Your task to perform on an android device: Add "bose soundlink" to the cart on ebay, then select checkout. Image 0: 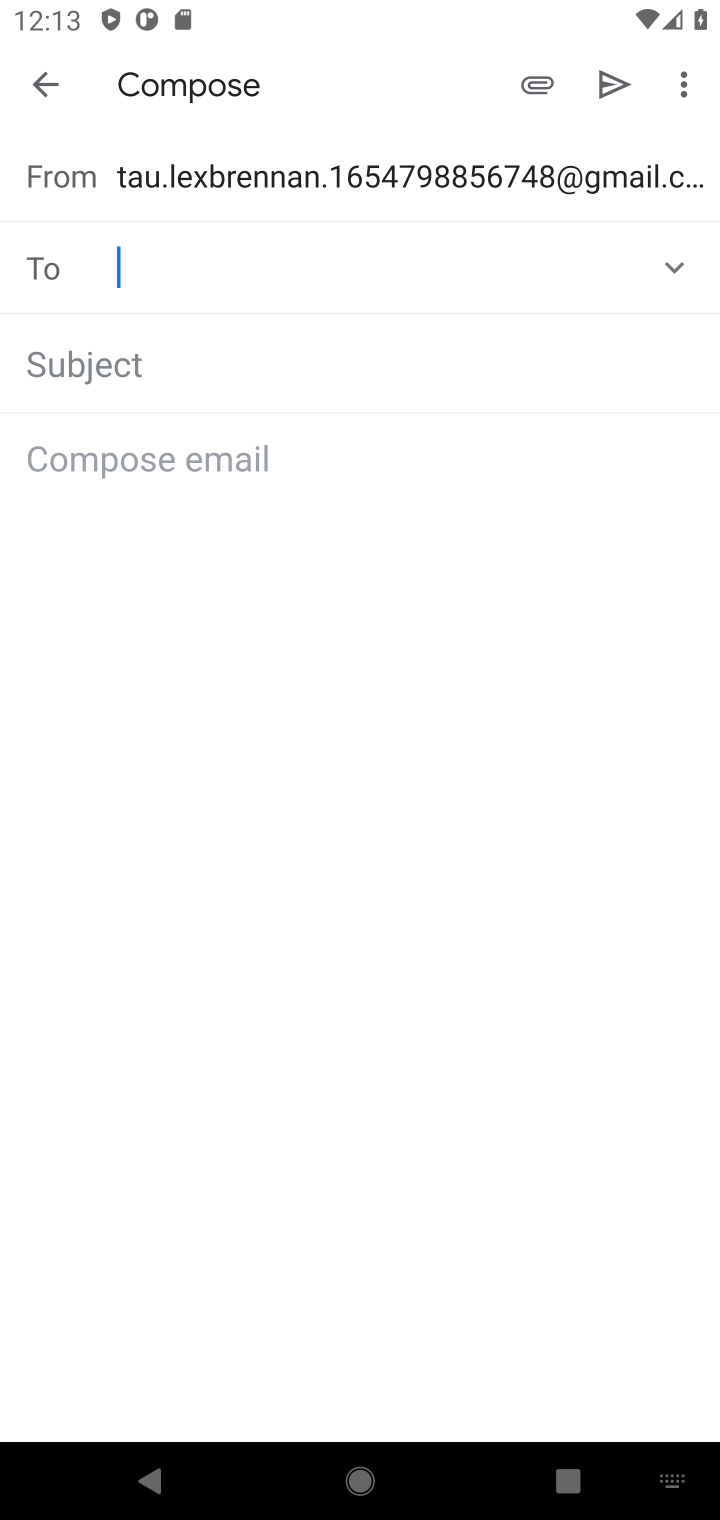
Step 0: press home button
Your task to perform on an android device: Add "bose soundlink" to the cart on ebay, then select checkout. Image 1: 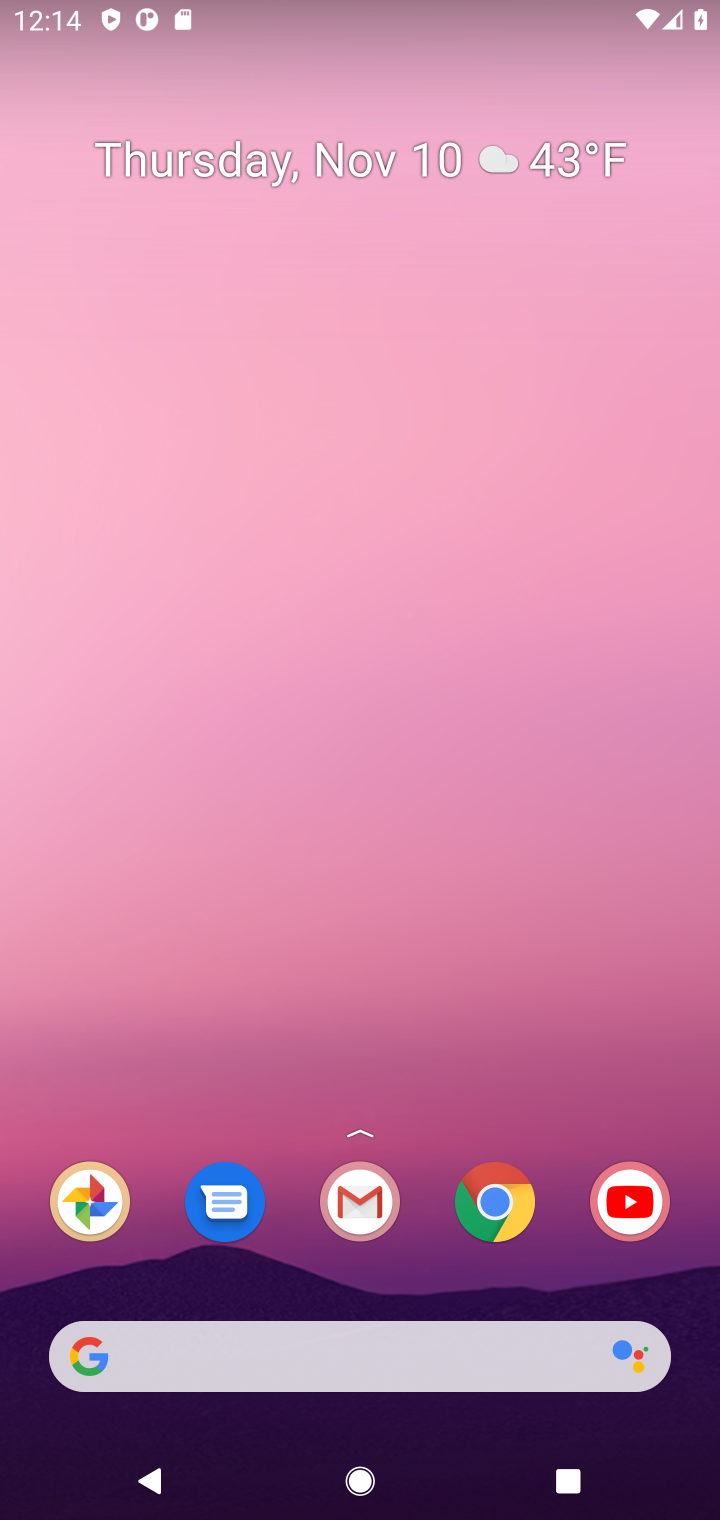
Step 1: click (497, 1194)
Your task to perform on an android device: Add "bose soundlink" to the cart on ebay, then select checkout. Image 2: 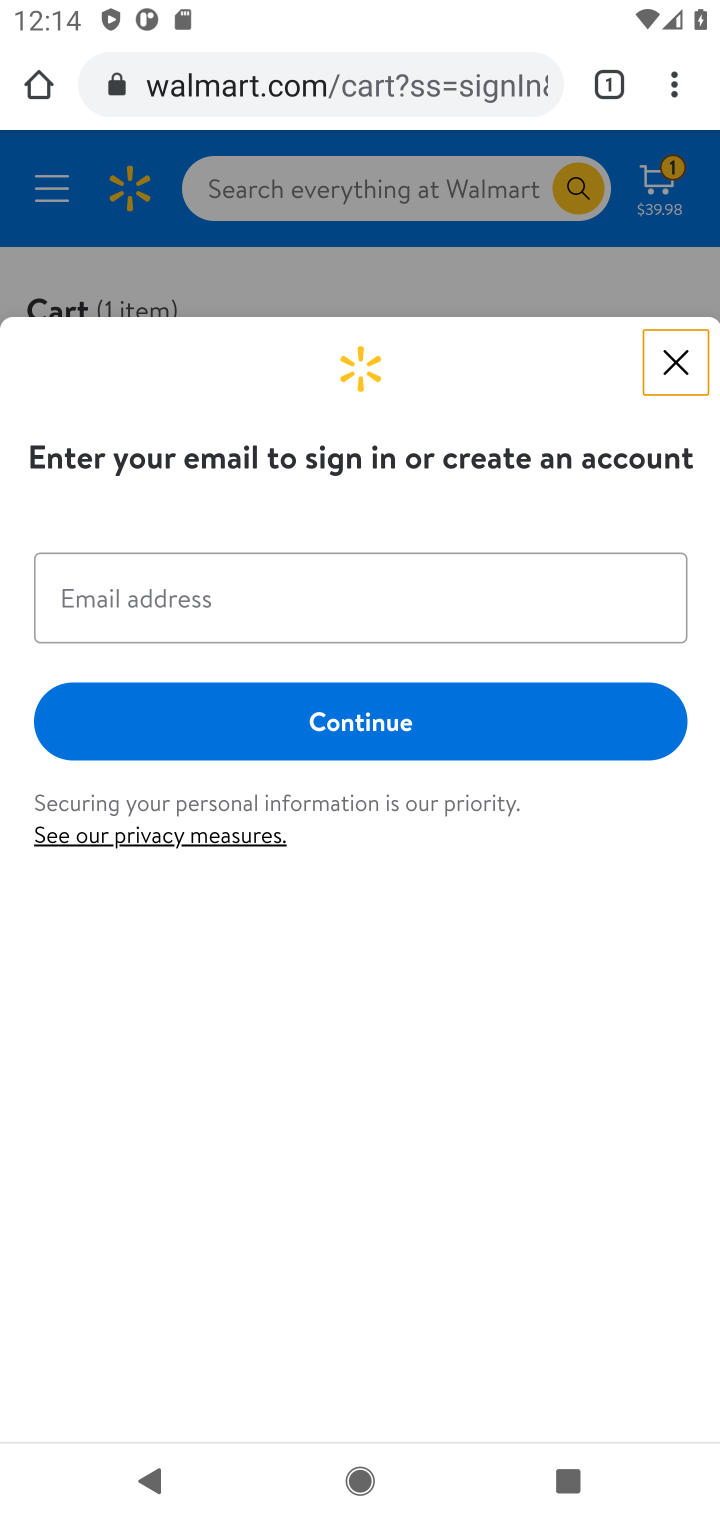
Step 2: click (354, 80)
Your task to perform on an android device: Add "bose soundlink" to the cart on ebay, then select checkout. Image 3: 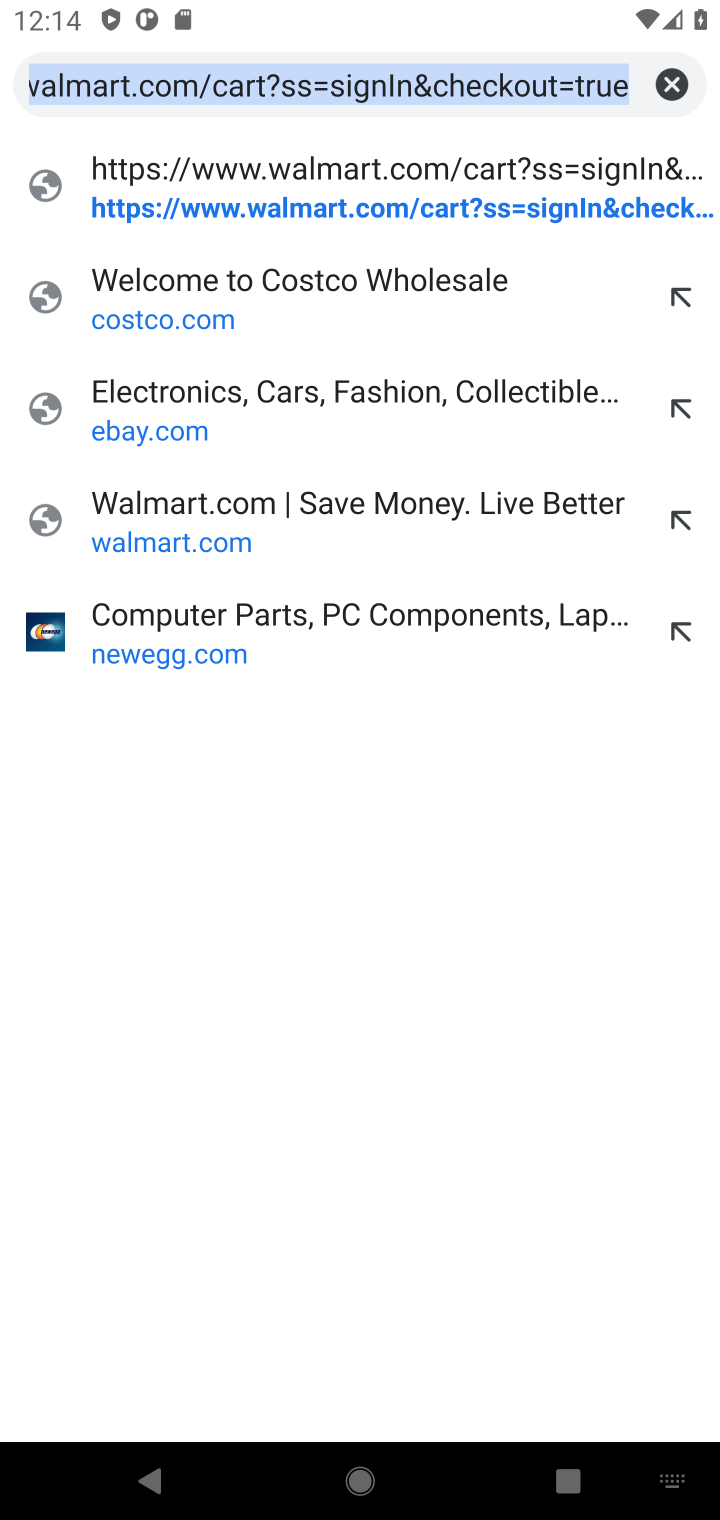
Step 3: click (286, 398)
Your task to perform on an android device: Add "bose soundlink" to the cart on ebay, then select checkout. Image 4: 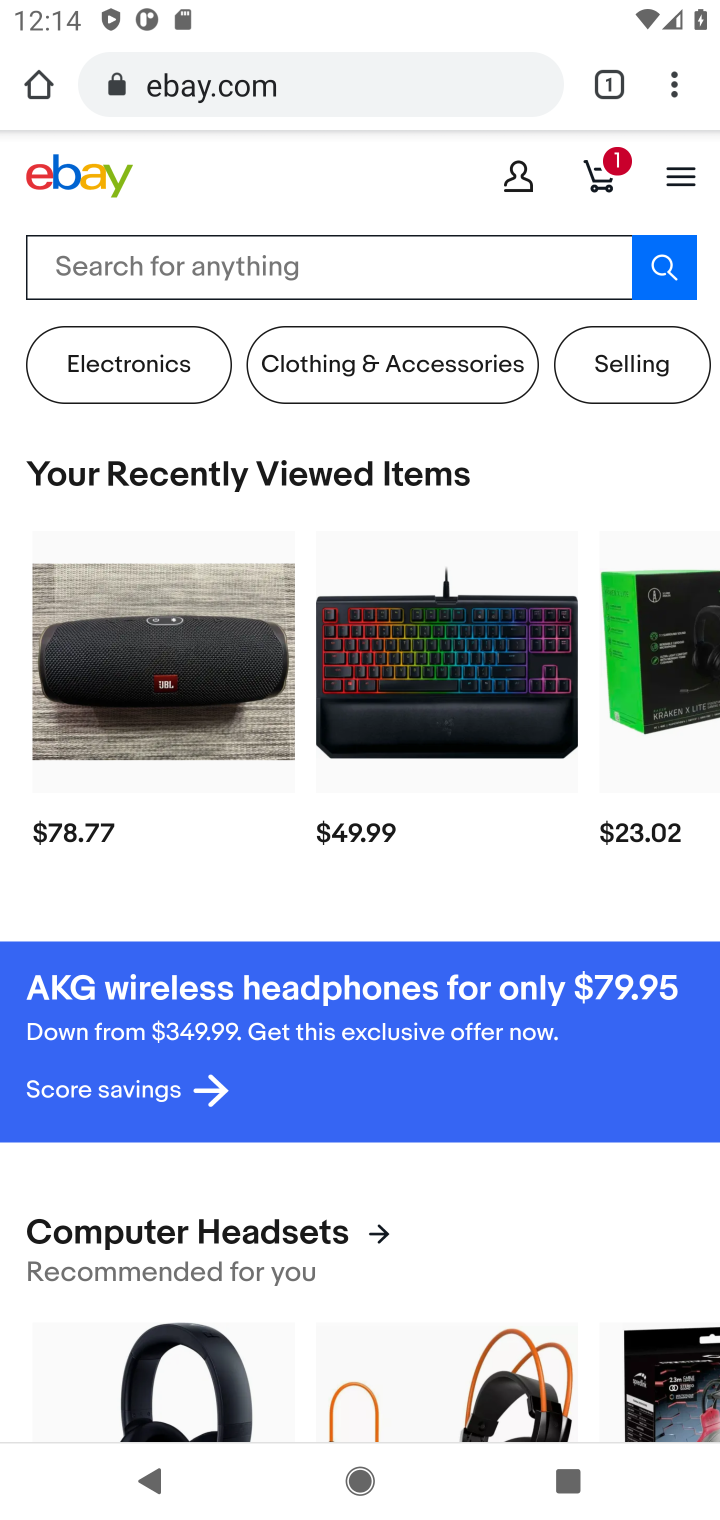
Step 4: click (459, 261)
Your task to perform on an android device: Add "bose soundlink" to the cart on ebay, then select checkout. Image 5: 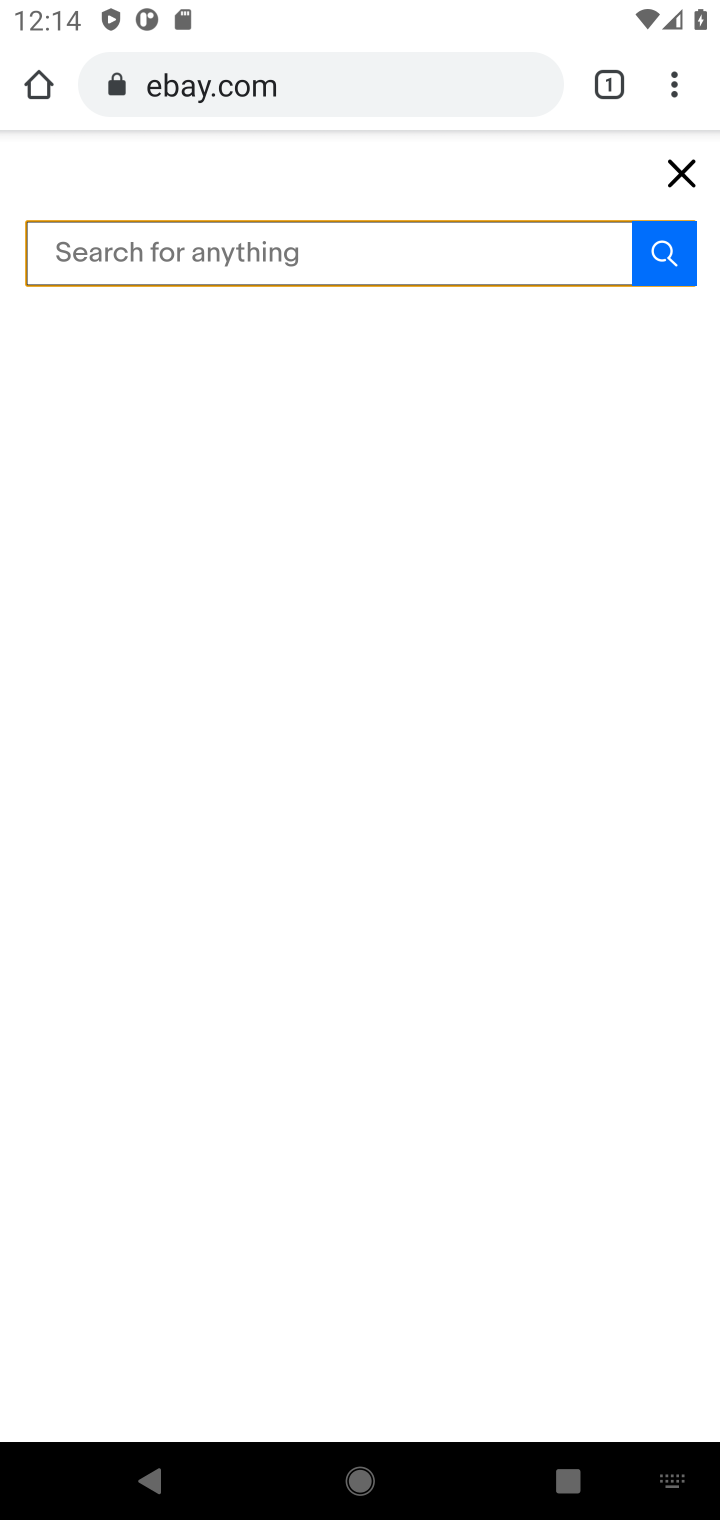
Step 5: type "bose soundlink"
Your task to perform on an android device: Add "bose soundlink" to the cart on ebay, then select checkout. Image 6: 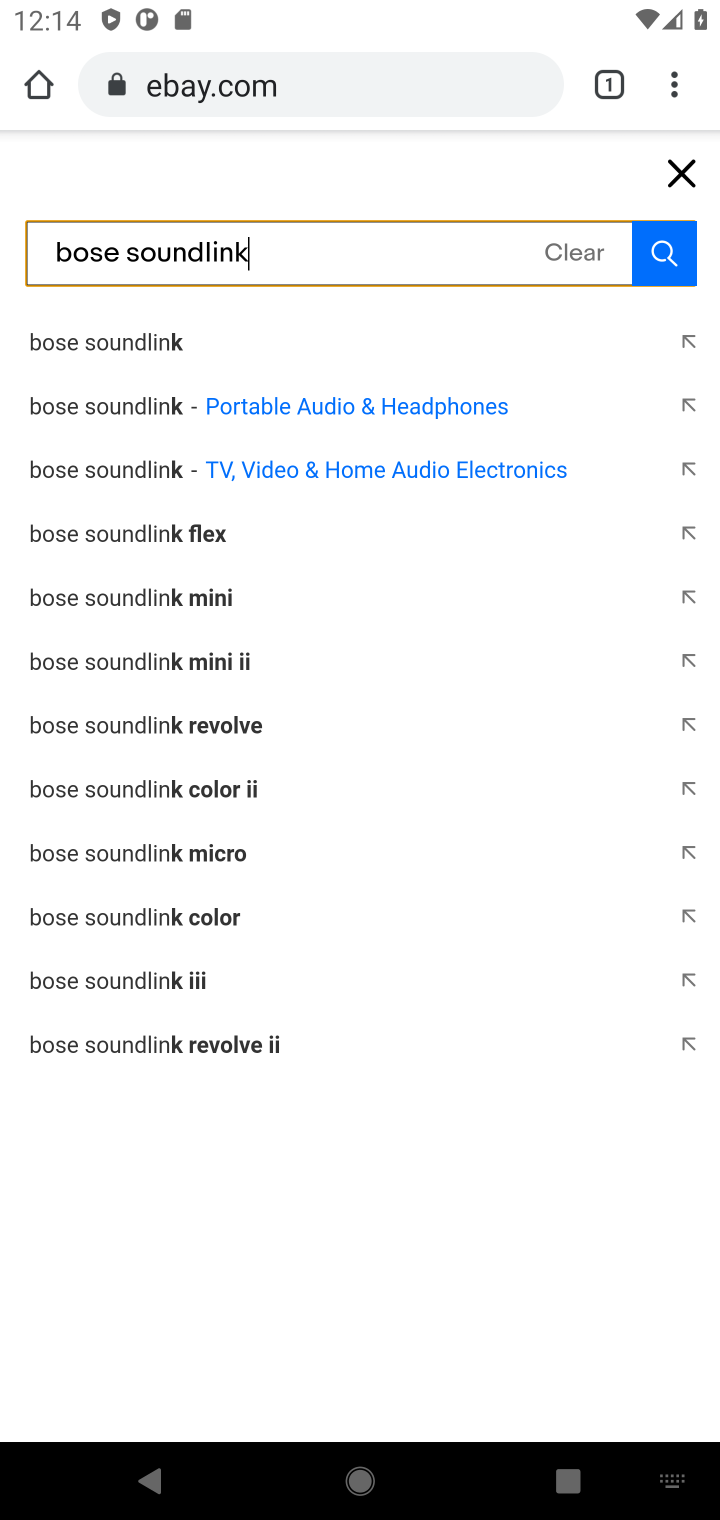
Step 6: click (120, 337)
Your task to perform on an android device: Add "bose soundlink" to the cart on ebay, then select checkout. Image 7: 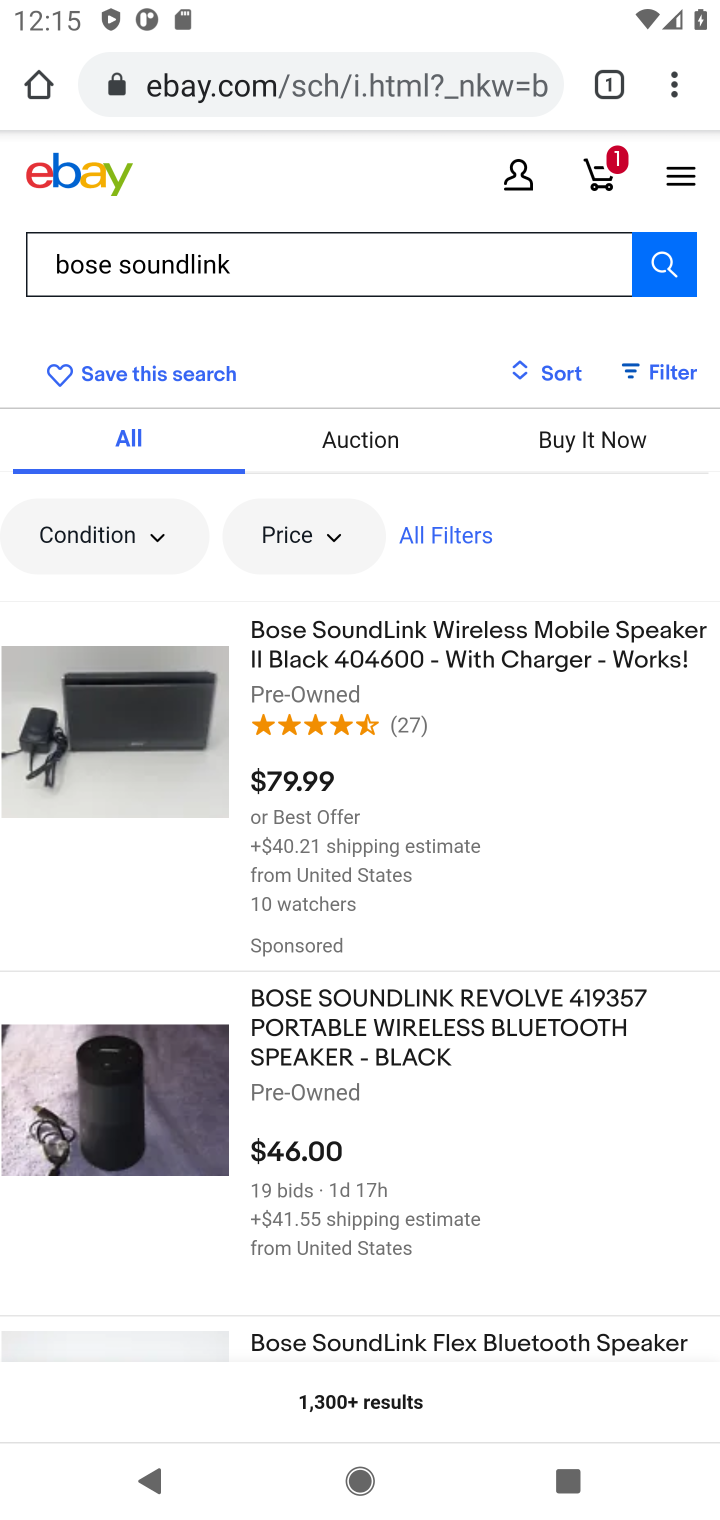
Step 7: click (133, 747)
Your task to perform on an android device: Add "bose soundlink" to the cart on ebay, then select checkout. Image 8: 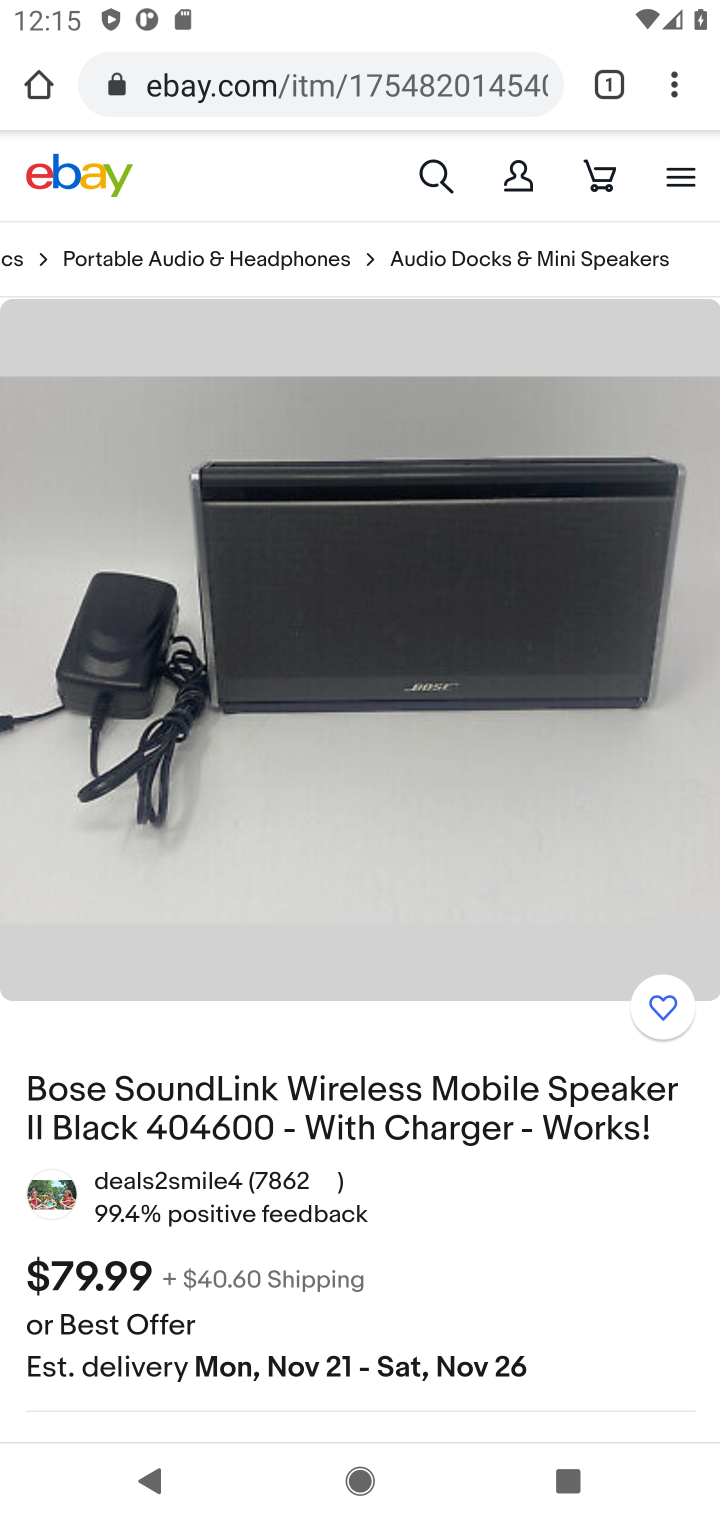
Step 8: drag from (497, 1221) to (469, 630)
Your task to perform on an android device: Add "bose soundlink" to the cart on ebay, then select checkout. Image 9: 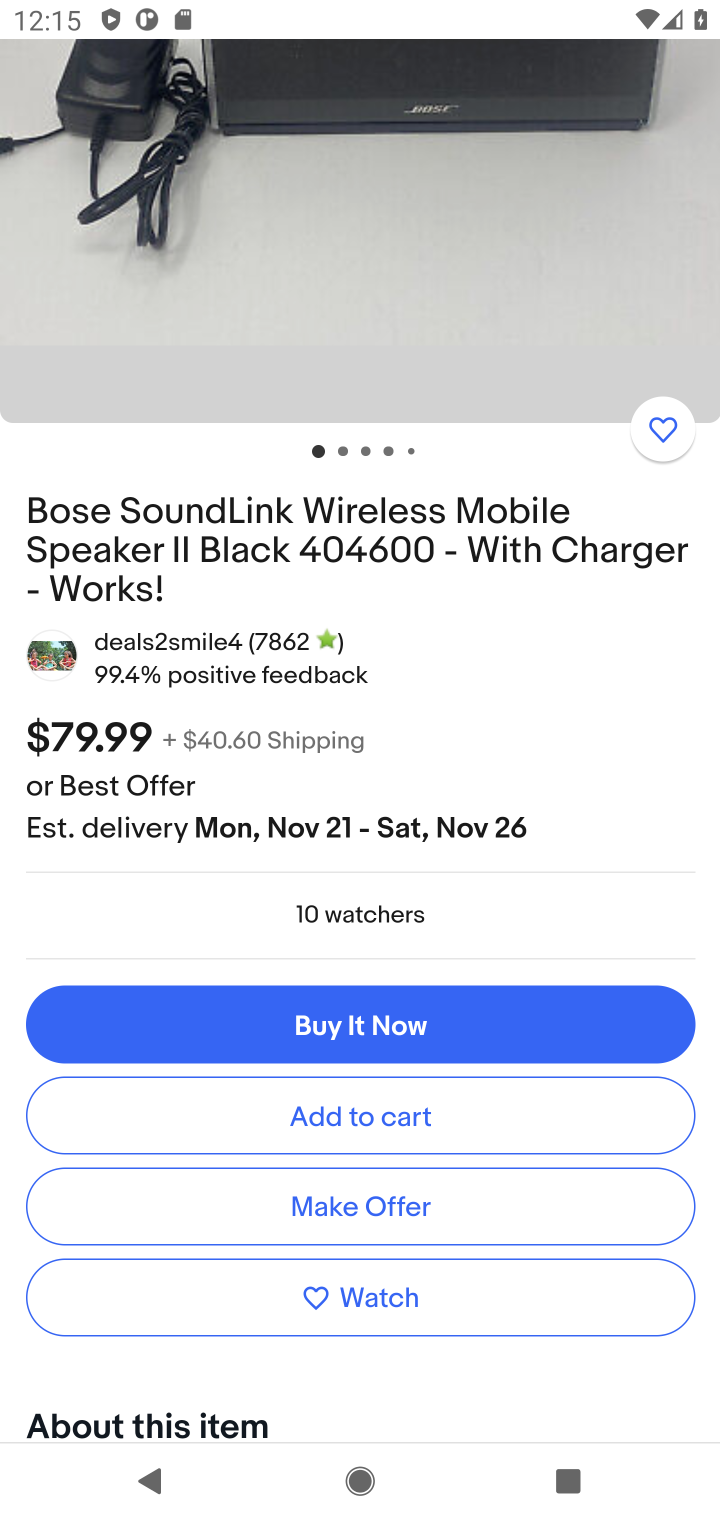
Step 9: click (371, 1114)
Your task to perform on an android device: Add "bose soundlink" to the cart on ebay, then select checkout. Image 10: 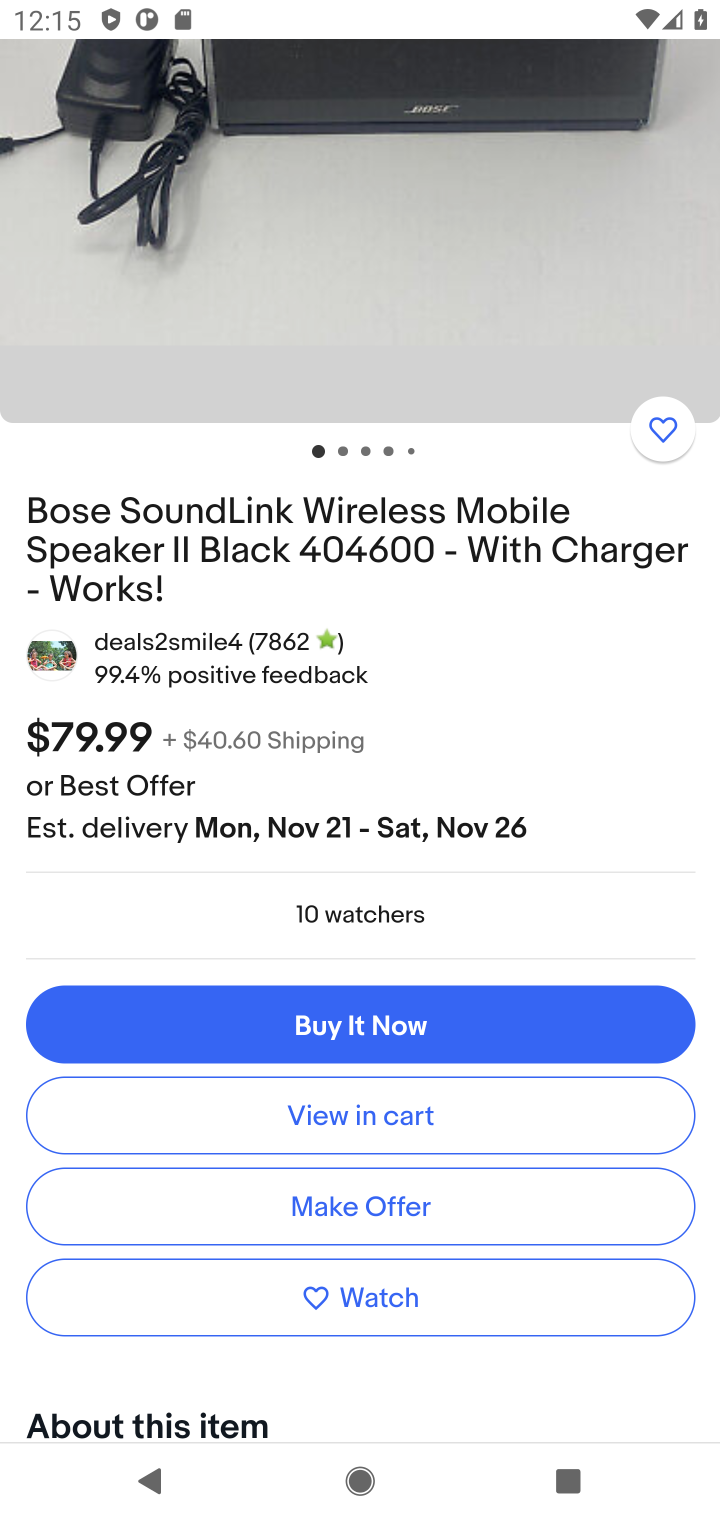
Step 10: click (371, 1114)
Your task to perform on an android device: Add "bose soundlink" to the cart on ebay, then select checkout. Image 11: 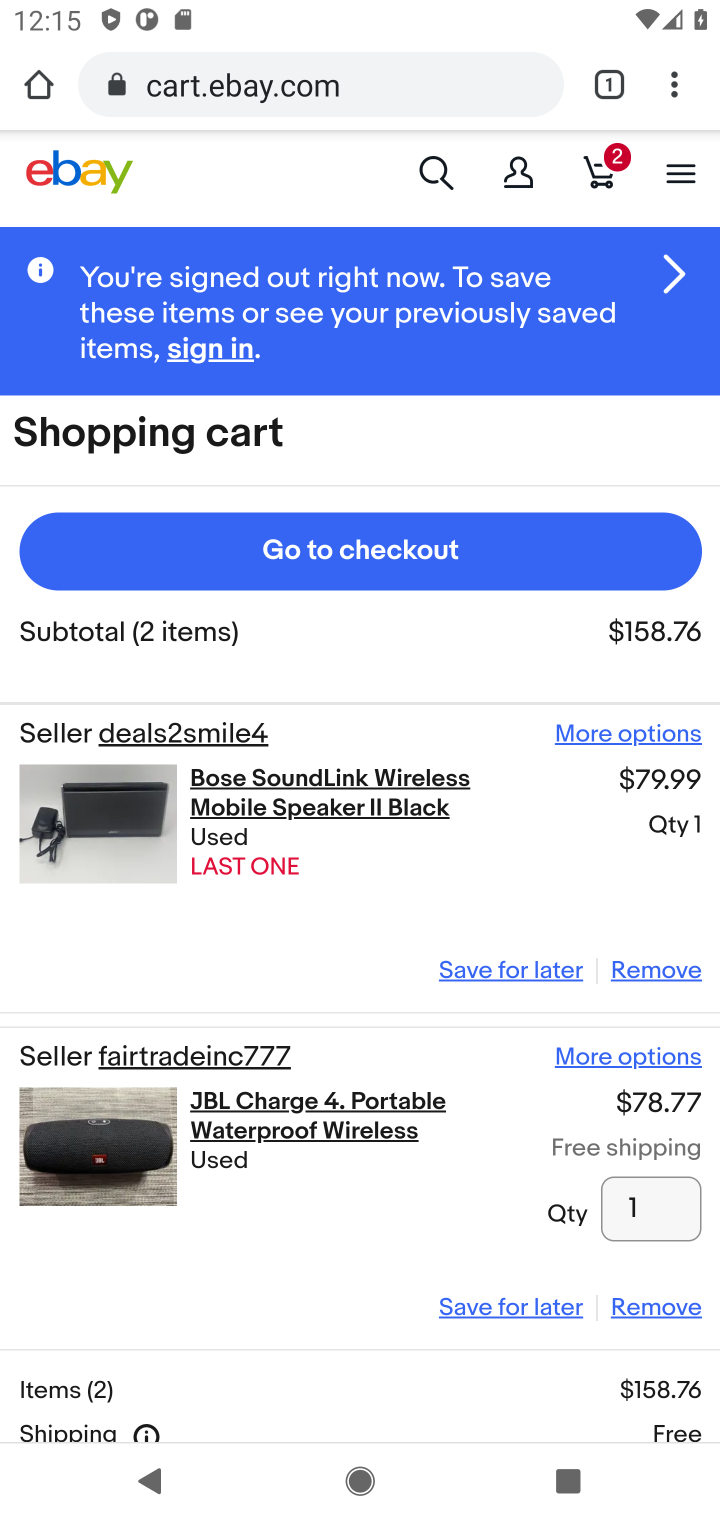
Step 11: click (350, 550)
Your task to perform on an android device: Add "bose soundlink" to the cart on ebay, then select checkout. Image 12: 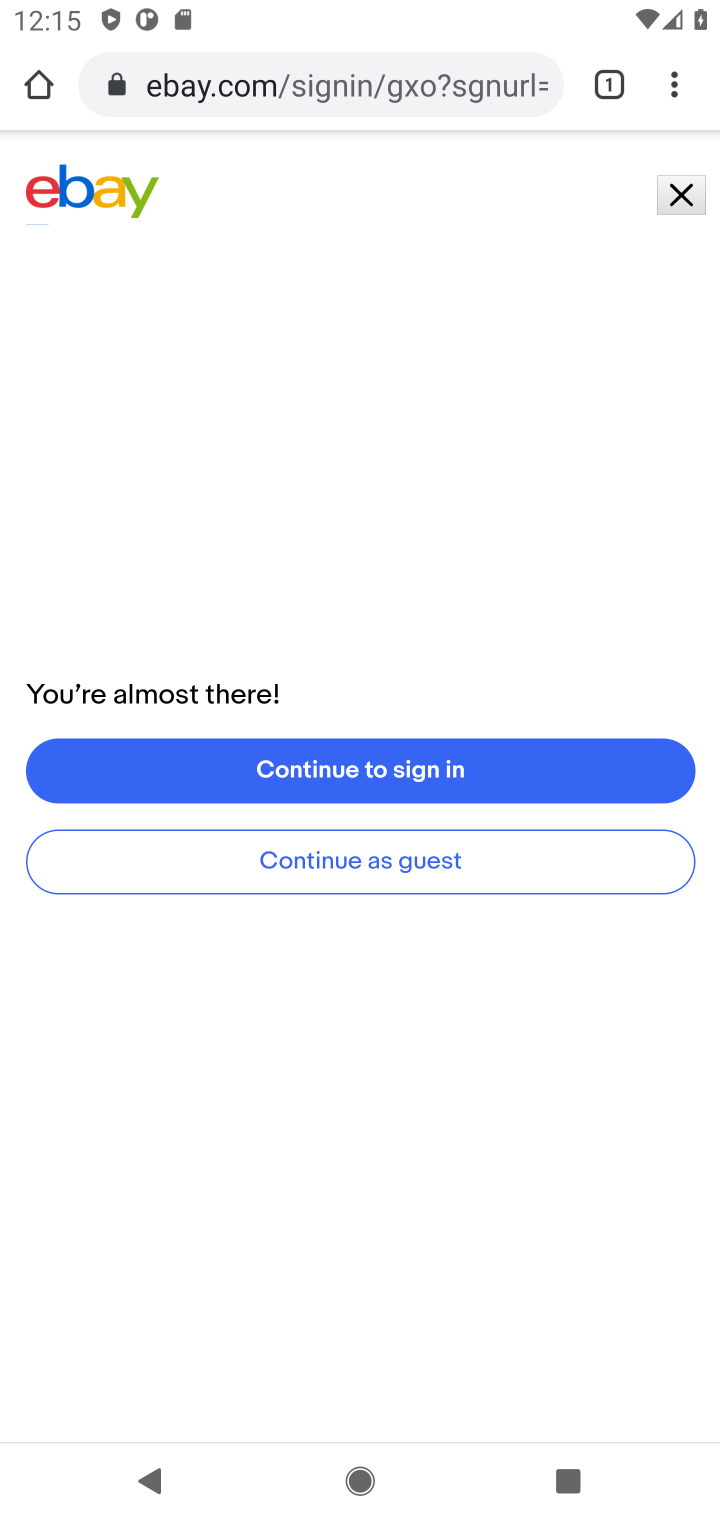
Step 12: task complete